Your task to perform on an android device: Go to CNN.com Image 0: 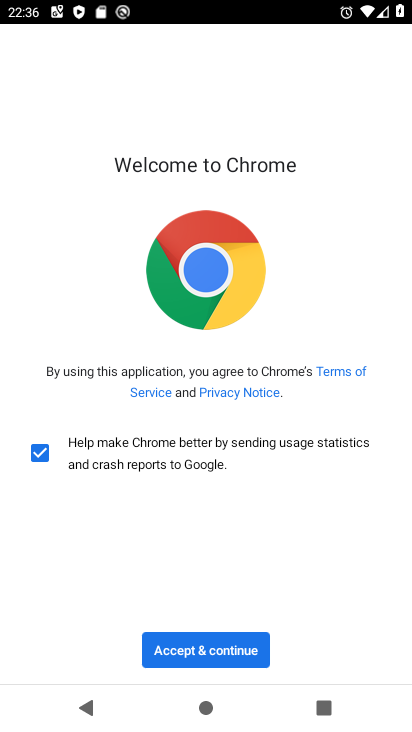
Step 0: press home button
Your task to perform on an android device: Go to CNN.com Image 1: 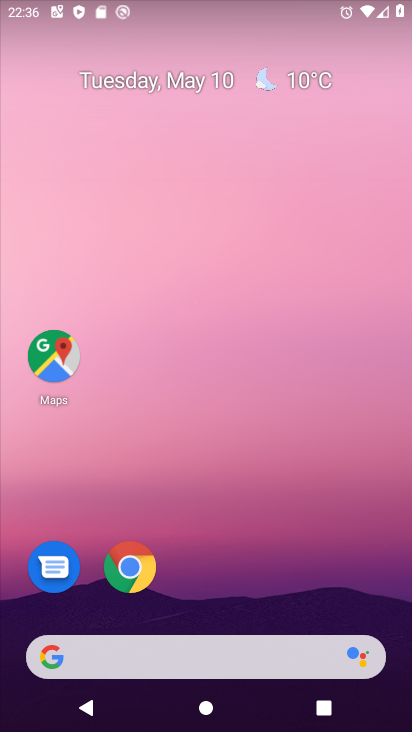
Step 1: click (139, 576)
Your task to perform on an android device: Go to CNN.com Image 2: 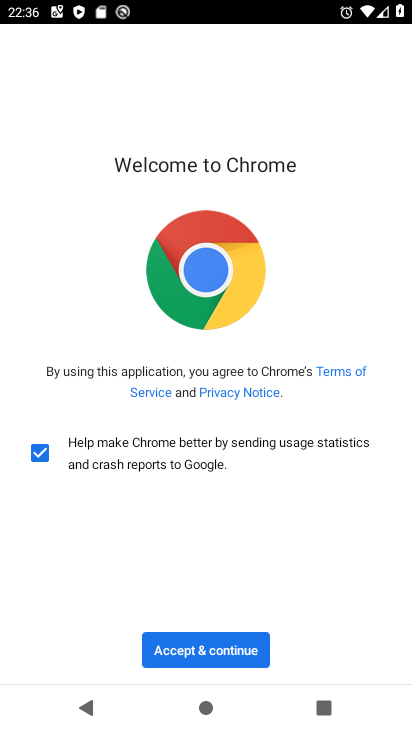
Step 2: click (205, 645)
Your task to perform on an android device: Go to CNN.com Image 3: 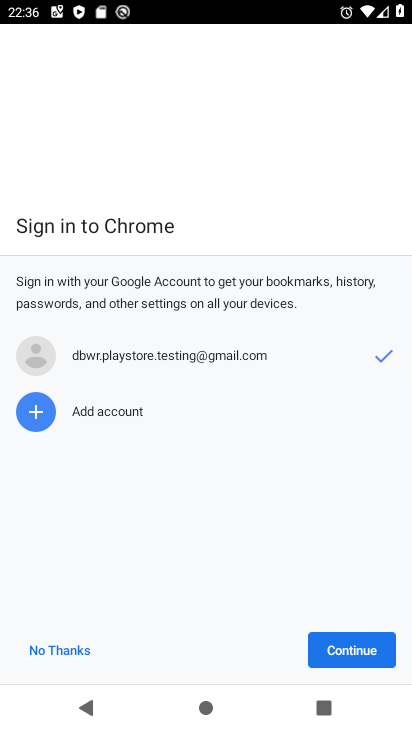
Step 3: click (50, 651)
Your task to perform on an android device: Go to CNN.com Image 4: 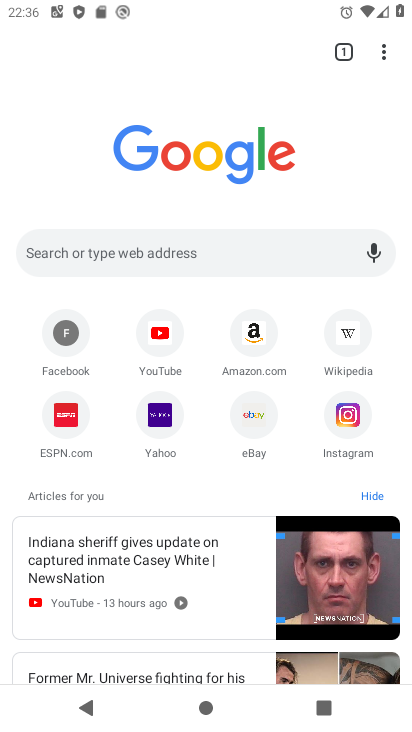
Step 4: click (99, 250)
Your task to perform on an android device: Go to CNN.com Image 5: 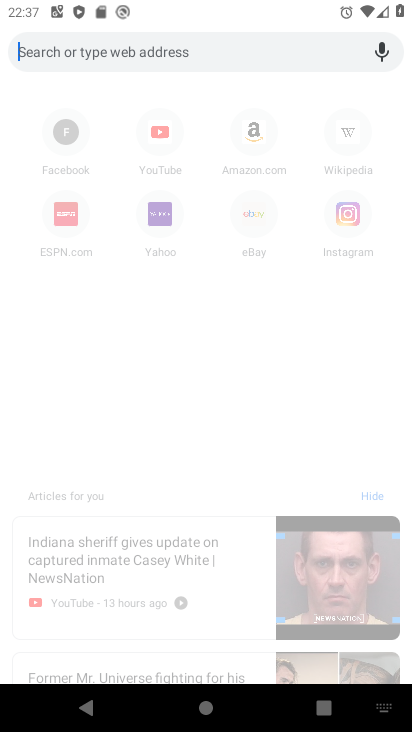
Step 5: type "cnn.com"
Your task to perform on an android device: Go to CNN.com Image 6: 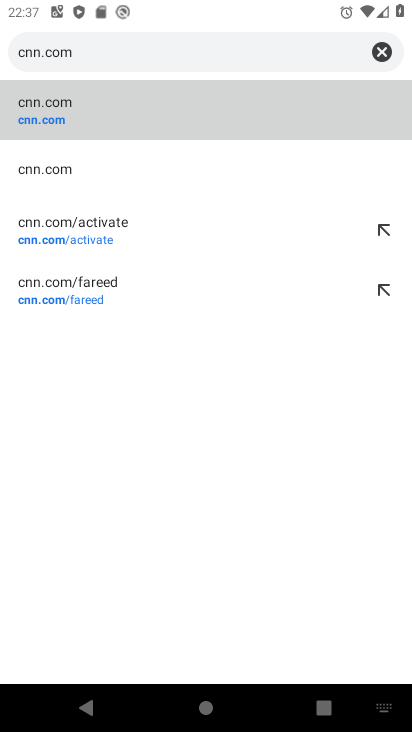
Step 6: click (54, 125)
Your task to perform on an android device: Go to CNN.com Image 7: 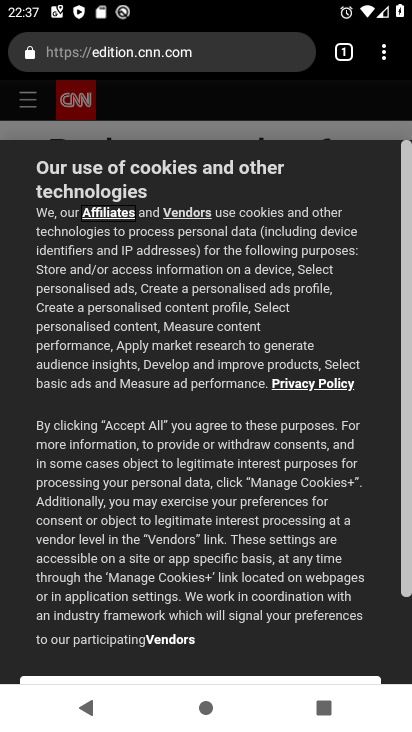
Step 7: task complete